Your task to perform on an android device: change alarm snooze length Image 0: 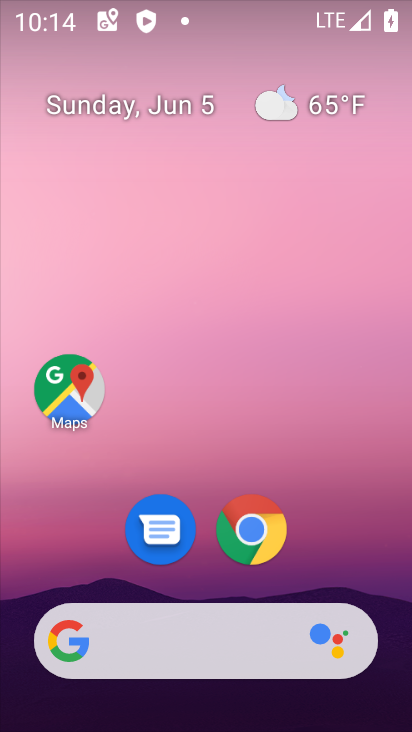
Step 0: drag from (175, 543) to (50, 701)
Your task to perform on an android device: change alarm snooze length Image 1: 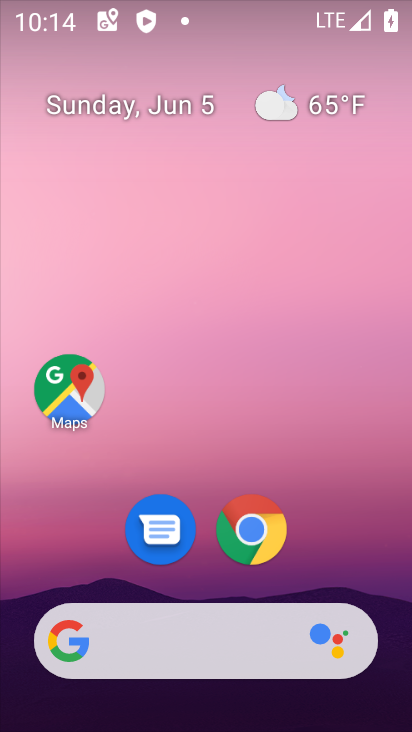
Step 1: drag from (250, 707) to (390, 101)
Your task to perform on an android device: change alarm snooze length Image 2: 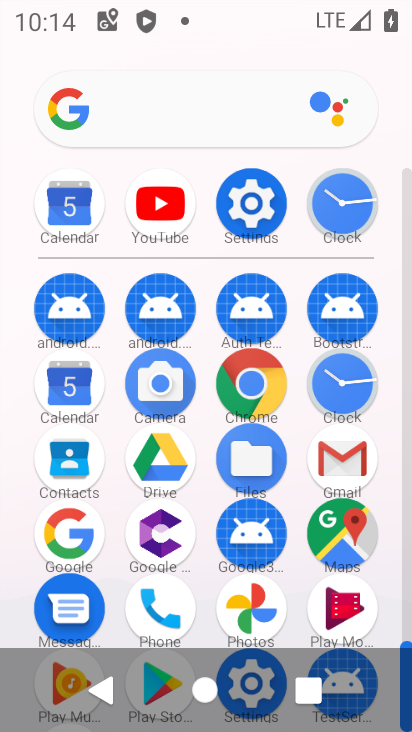
Step 2: click (357, 202)
Your task to perform on an android device: change alarm snooze length Image 3: 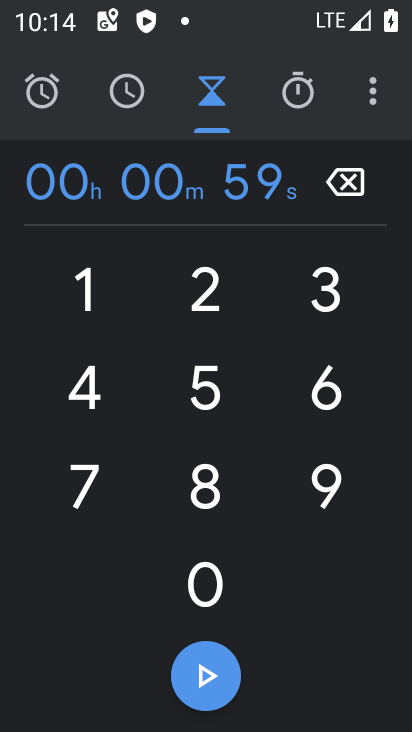
Step 3: click (384, 87)
Your task to perform on an android device: change alarm snooze length Image 4: 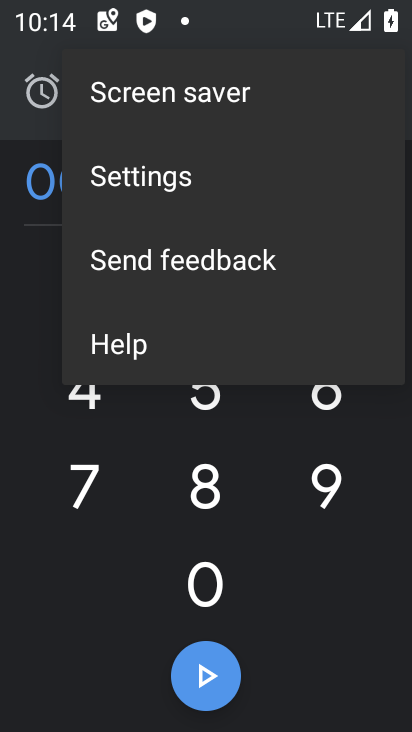
Step 4: click (189, 180)
Your task to perform on an android device: change alarm snooze length Image 5: 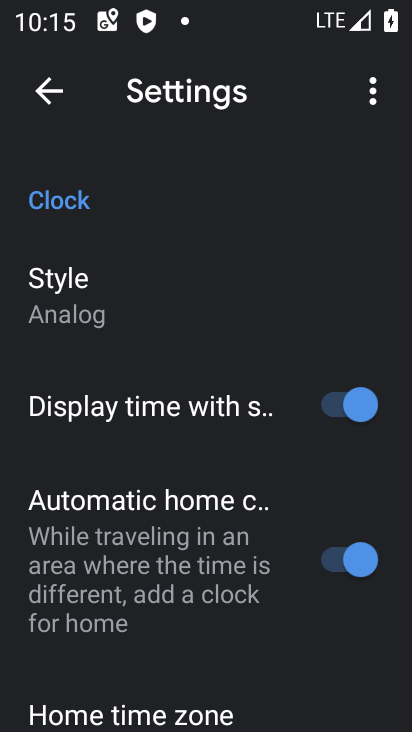
Step 5: drag from (271, 645) to (353, 117)
Your task to perform on an android device: change alarm snooze length Image 6: 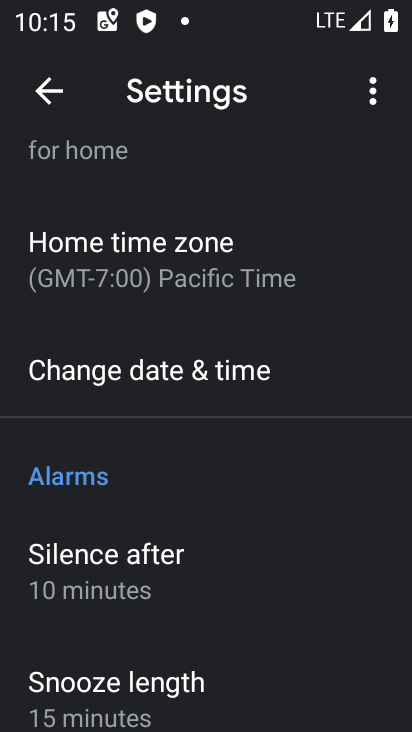
Step 6: click (195, 699)
Your task to perform on an android device: change alarm snooze length Image 7: 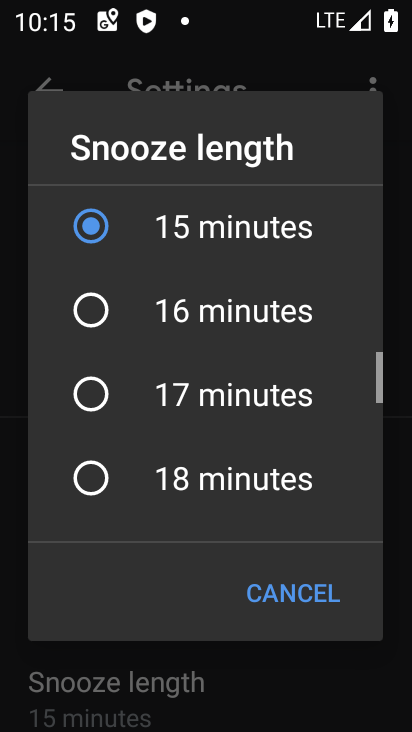
Step 7: click (195, 489)
Your task to perform on an android device: change alarm snooze length Image 8: 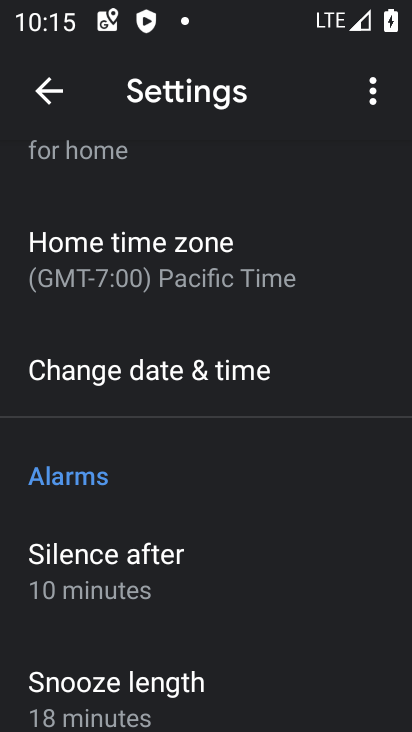
Step 8: task complete